Your task to perform on an android device: search for starred emails in the gmail app Image 0: 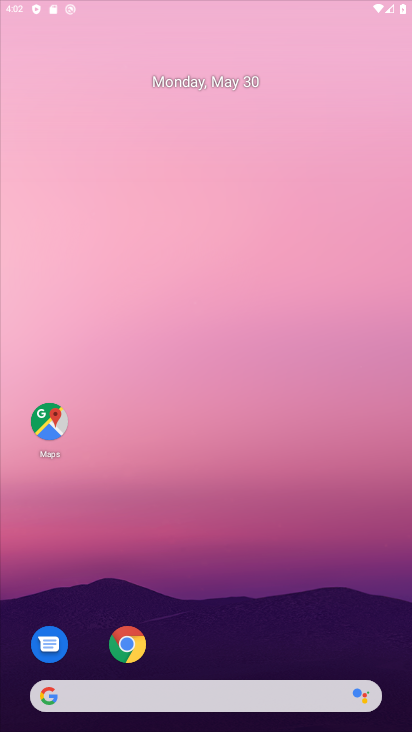
Step 0: drag from (216, 637) to (230, 30)
Your task to perform on an android device: search for starred emails in the gmail app Image 1: 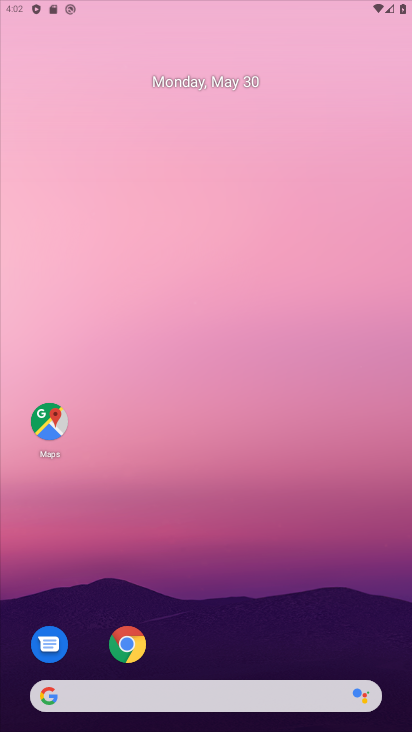
Step 1: drag from (210, 638) to (163, 94)
Your task to perform on an android device: search for starred emails in the gmail app Image 2: 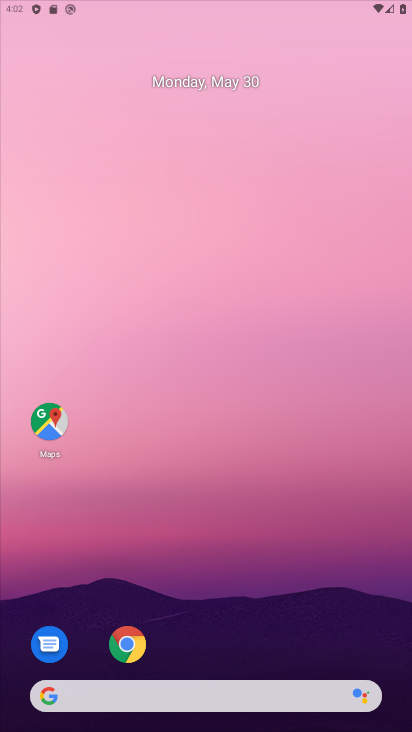
Step 2: drag from (202, 660) to (238, 22)
Your task to perform on an android device: search for starred emails in the gmail app Image 3: 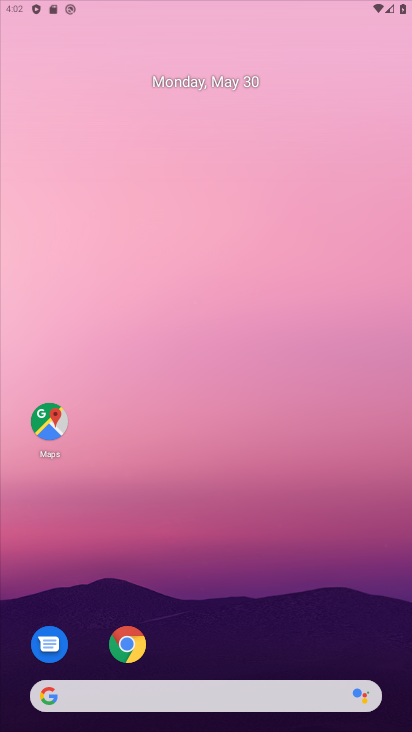
Step 3: drag from (210, 642) to (209, 152)
Your task to perform on an android device: search for starred emails in the gmail app Image 4: 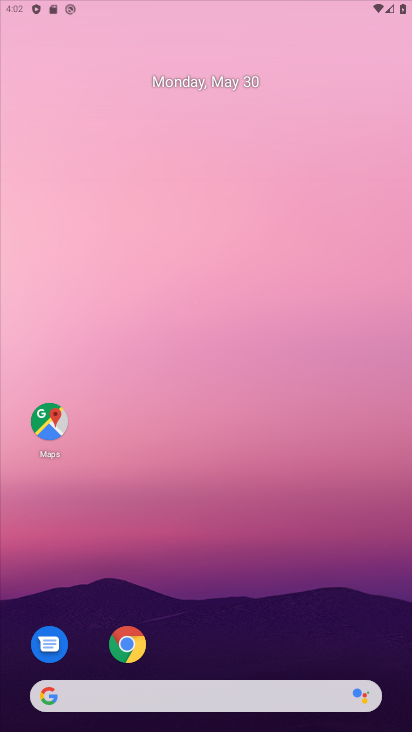
Step 4: drag from (198, 632) to (287, 35)
Your task to perform on an android device: search for starred emails in the gmail app Image 5: 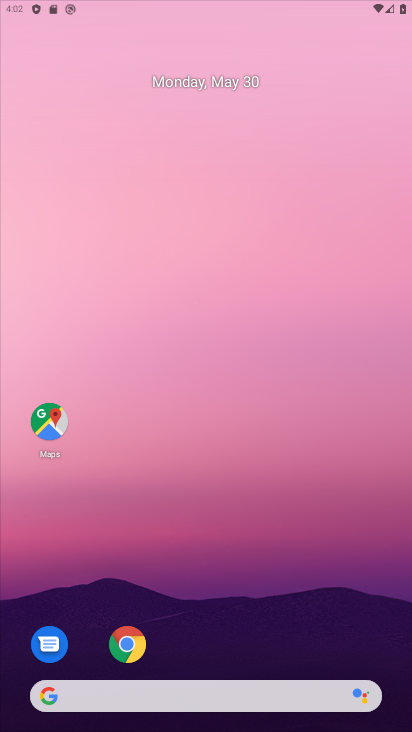
Step 5: drag from (239, 651) to (281, 68)
Your task to perform on an android device: search for starred emails in the gmail app Image 6: 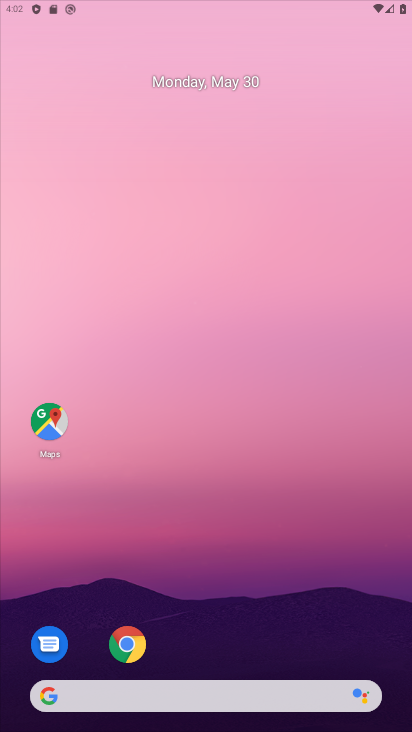
Step 6: drag from (252, 640) to (270, 73)
Your task to perform on an android device: search for starred emails in the gmail app Image 7: 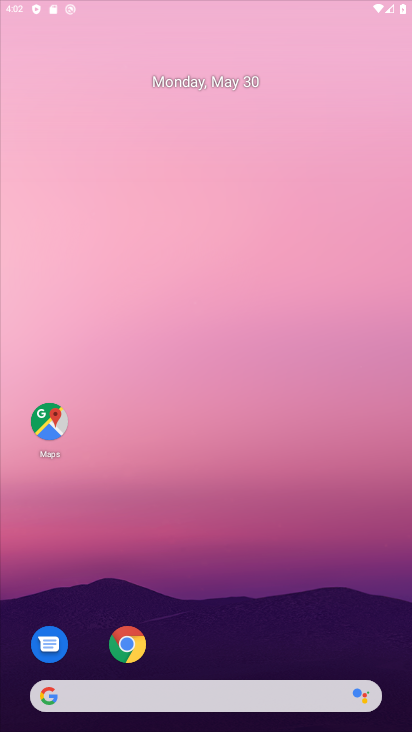
Step 7: drag from (197, 642) to (166, 86)
Your task to perform on an android device: search for starred emails in the gmail app Image 8: 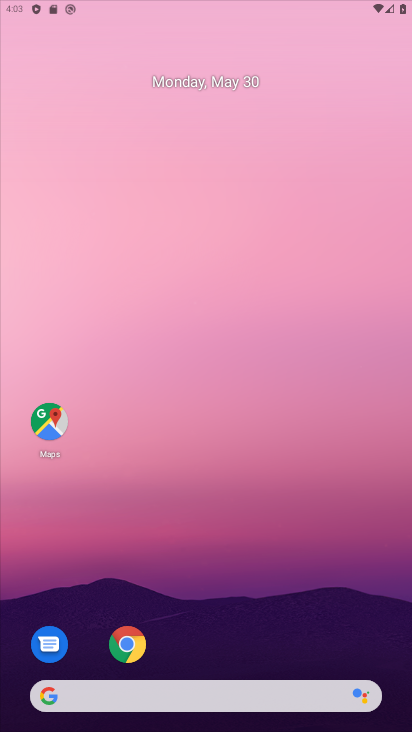
Step 8: click (118, 643)
Your task to perform on an android device: search for starred emails in the gmail app Image 9: 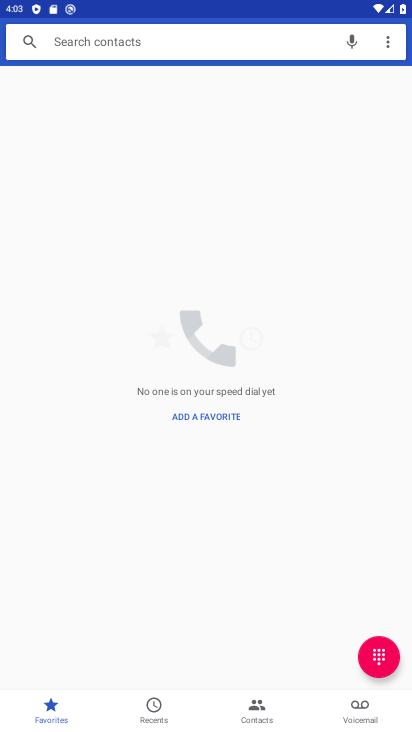
Step 9: press home button
Your task to perform on an android device: search for starred emails in the gmail app Image 10: 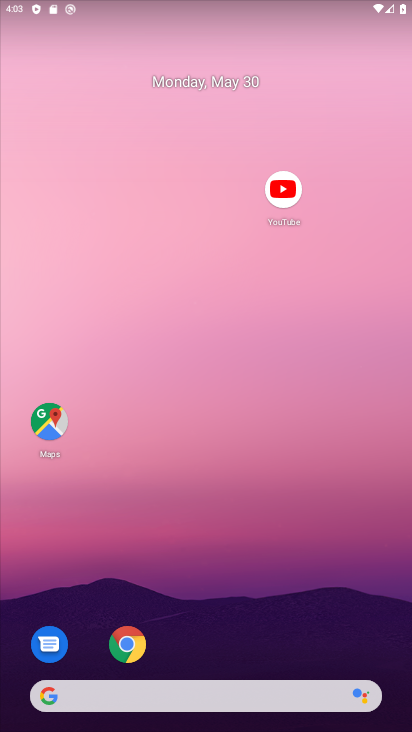
Step 10: drag from (189, 673) to (174, 179)
Your task to perform on an android device: search for starred emails in the gmail app Image 11: 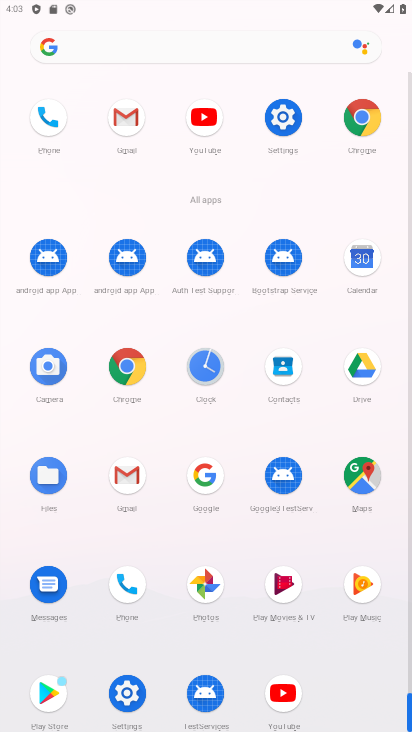
Step 11: click (127, 111)
Your task to perform on an android device: search for starred emails in the gmail app Image 12: 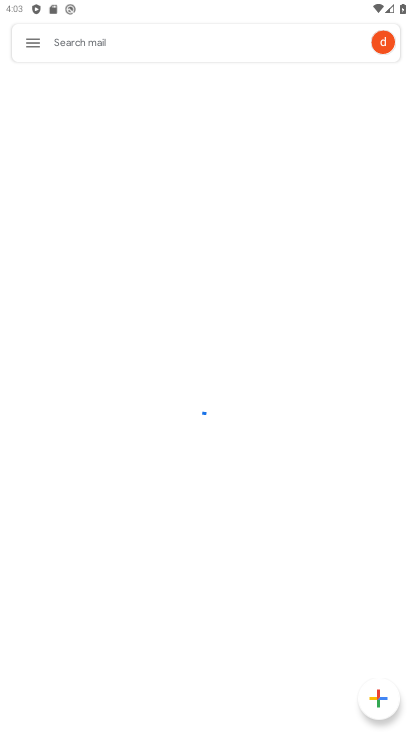
Step 12: click (37, 47)
Your task to perform on an android device: search for starred emails in the gmail app Image 13: 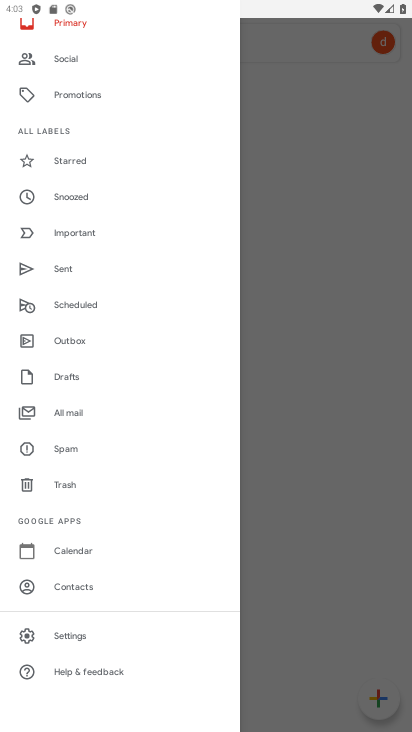
Step 13: click (78, 162)
Your task to perform on an android device: search for starred emails in the gmail app Image 14: 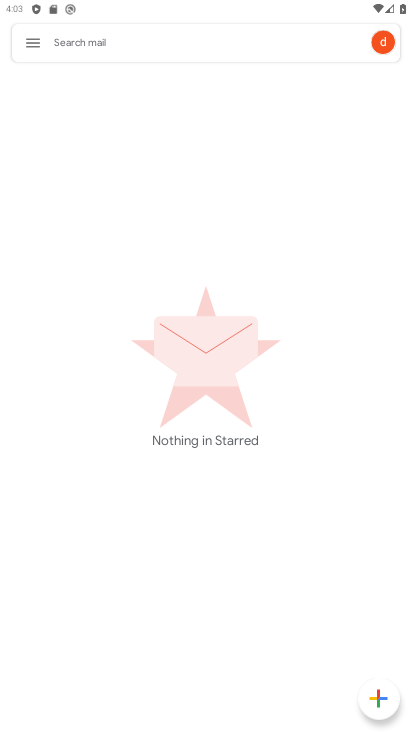
Step 14: task complete